Your task to perform on an android device: toggle location history Image 0: 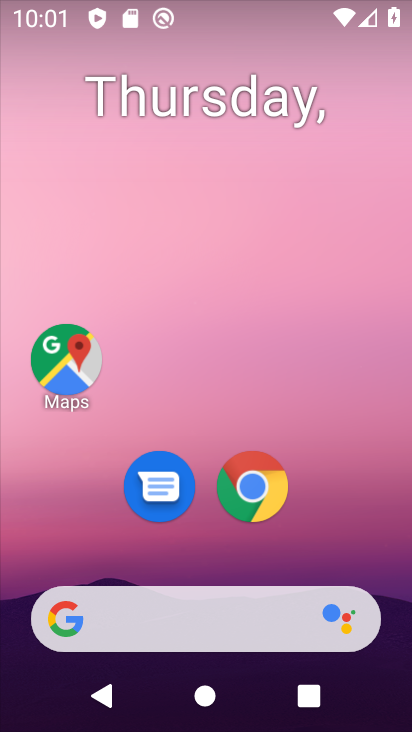
Step 0: drag from (153, 490) to (190, 124)
Your task to perform on an android device: toggle location history Image 1: 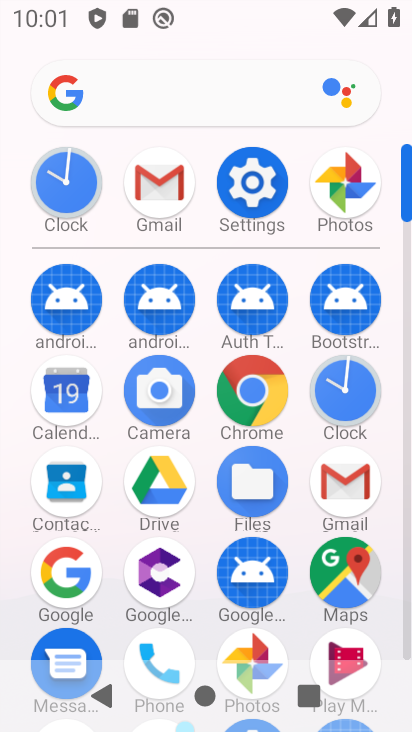
Step 1: click (254, 169)
Your task to perform on an android device: toggle location history Image 2: 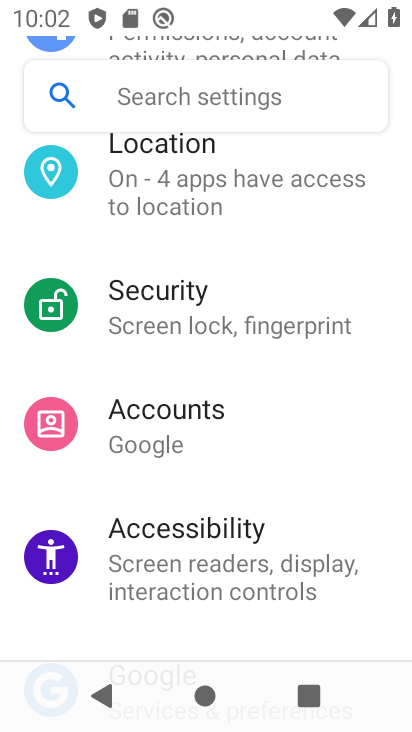
Step 2: click (238, 208)
Your task to perform on an android device: toggle location history Image 3: 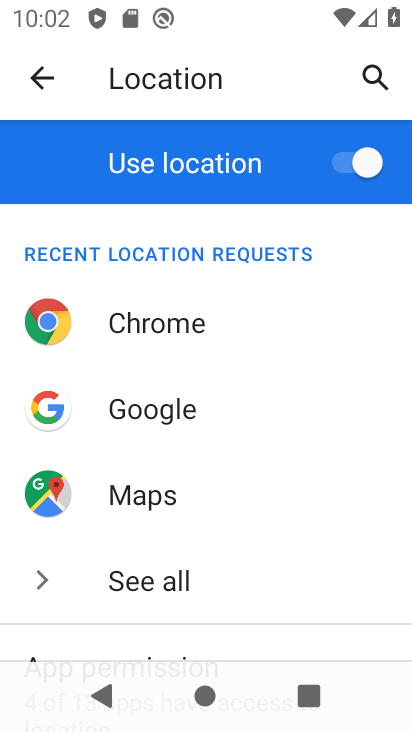
Step 3: drag from (234, 237) to (252, 117)
Your task to perform on an android device: toggle location history Image 4: 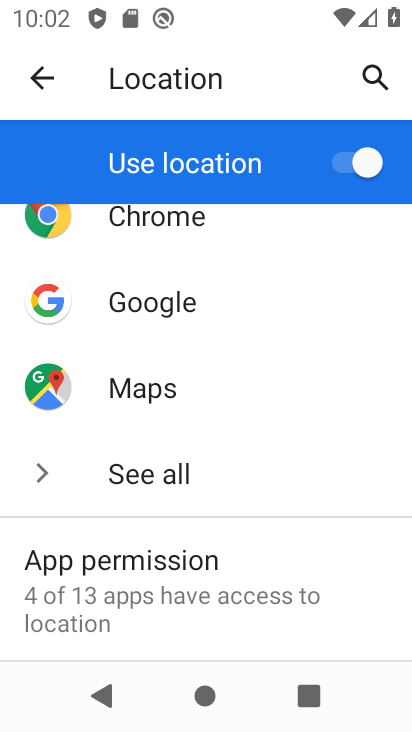
Step 4: drag from (204, 546) to (301, 163)
Your task to perform on an android device: toggle location history Image 5: 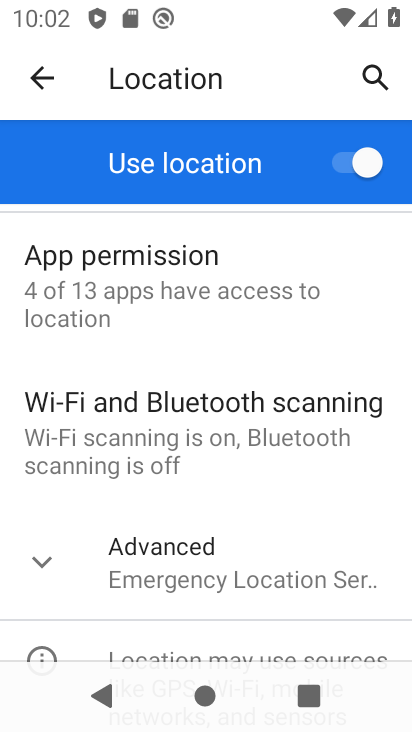
Step 5: click (173, 590)
Your task to perform on an android device: toggle location history Image 6: 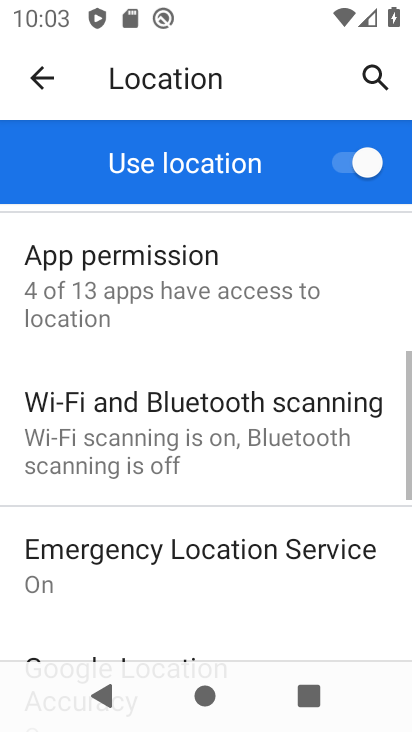
Step 6: drag from (174, 610) to (248, 222)
Your task to perform on an android device: toggle location history Image 7: 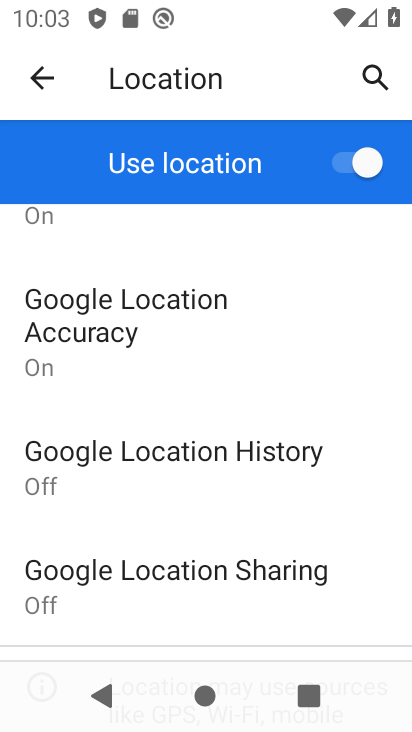
Step 7: click (202, 476)
Your task to perform on an android device: toggle location history Image 8: 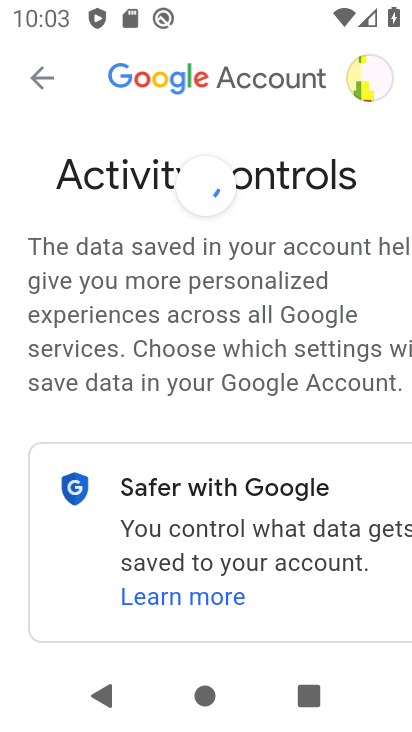
Step 8: drag from (197, 571) to (287, 50)
Your task to perform on an android device: toggle location history Image 9: 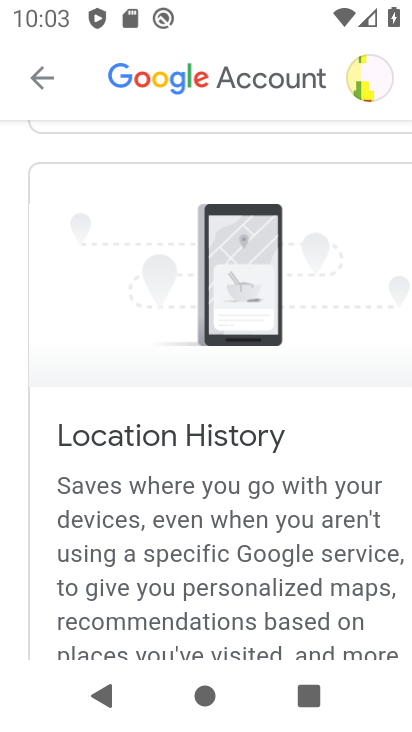
Step 9: drag from (172, 628) to (244, 152)
Your task to perform on an android device: toggle location history Image 10: 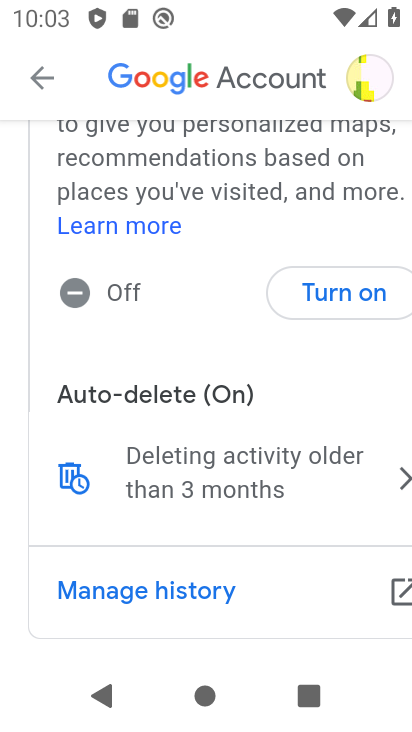
Step 10: click (329, 288)
Your task to perform on an android device: toggle location history Image 11: 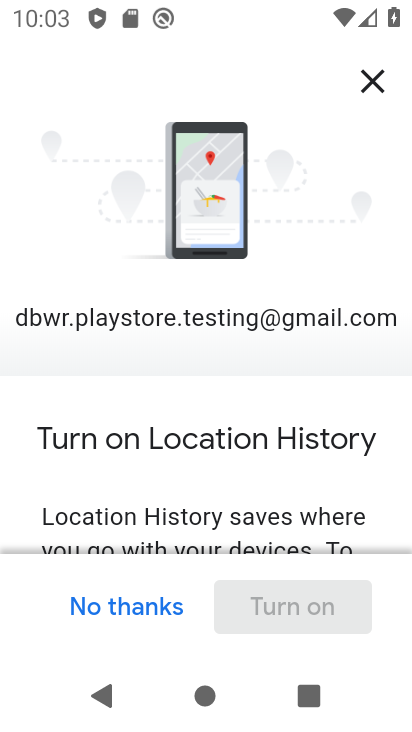
Step 11: drag from (259, 547) to (355, 84)
Your task to perform on an android device: toggle location history Image 12: 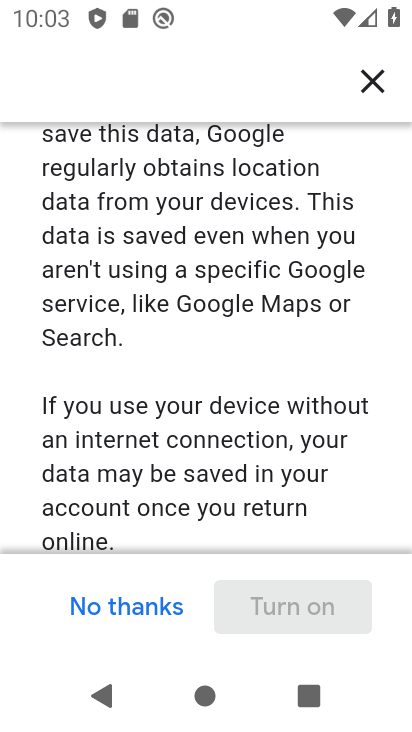
Step 12: drag from (217, 517) to (295, 49)
Your task to perform on an android device: toggle location history Image 13: 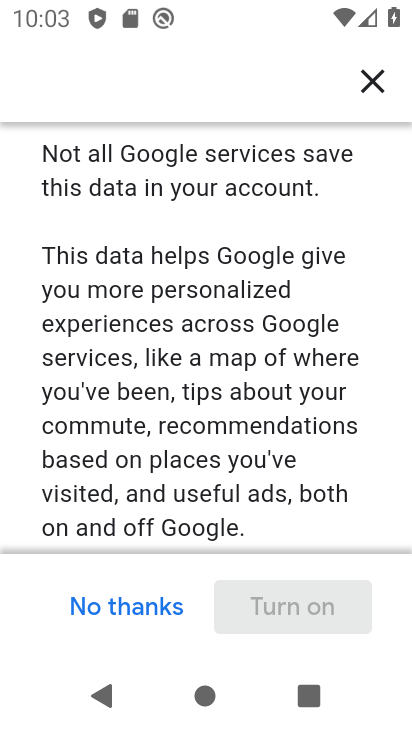
Step 13: drag from (221, 503) to (318, 32)
Your task to perform on an android device: toggle location history Image 14: 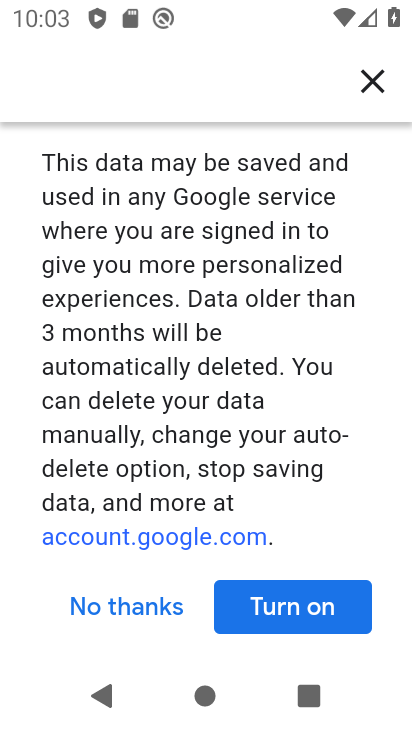
Step 14: click (260, 608)
Your task to perform on an android device: toggle location history Image 15: 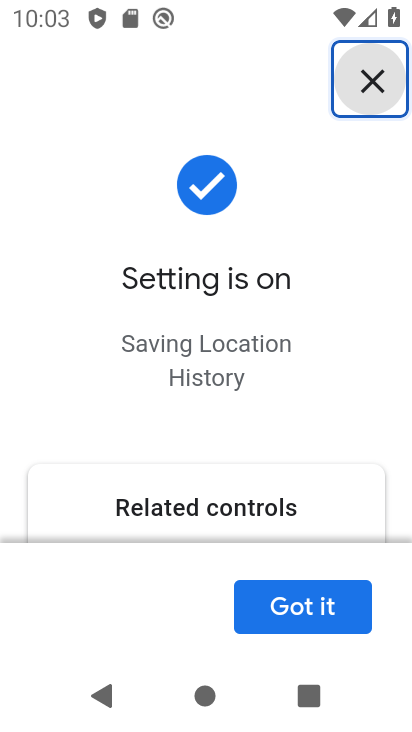
Step 15: click (325, 616)
Your task to perform on an android device: toggle location history Image 16: 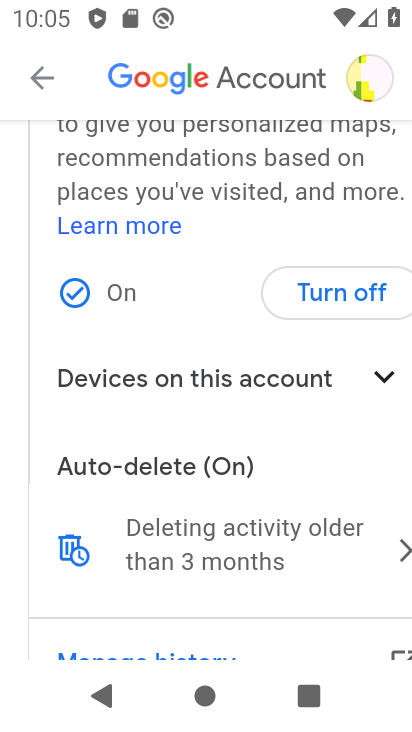
Step 16: drag from (290, 577) to (169, 648)
Your task to perform on an android device: toggle location history Image 17: 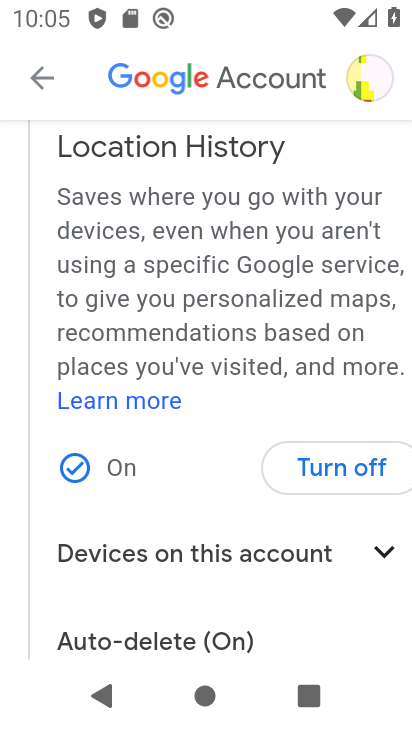
Step 17: drag from (211, 259) to (143, 686)
Your task to perform on an android device: toggle location history Image 18: 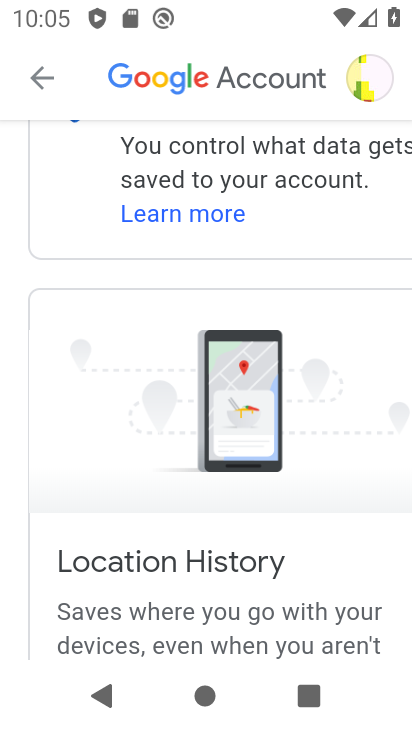
Step 18: drag from (169, 567) to (207, 43)
Your task to perform on an android device: toggle location history Image 19: 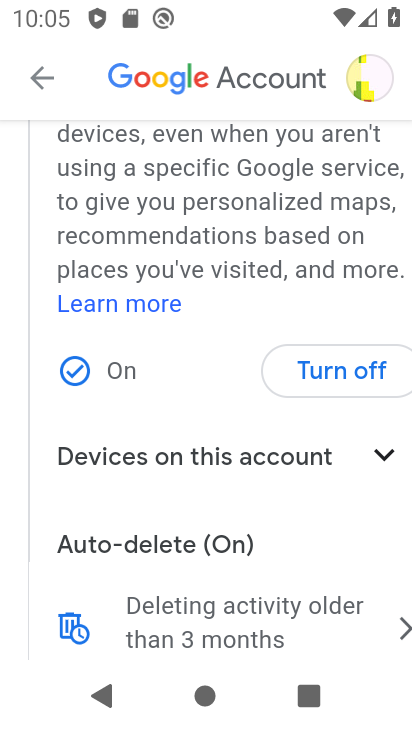
Step 19: click (337, 363)
Your task to perform on an android device: toggle location history Image 20: 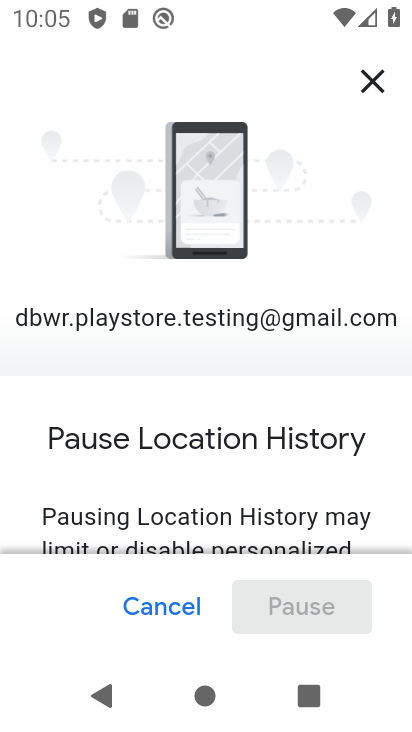
Step 20: drag from (243, 489) to (261, 9)
Your task to perform on an android device: toggle location history Image 21: 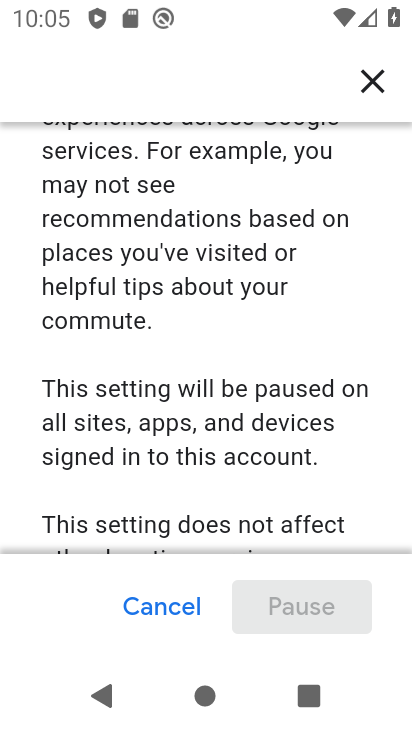
Step 21: drag from (227, 491) to (308, 23)
Your task to perform on an android device: toggle location history Image 22: 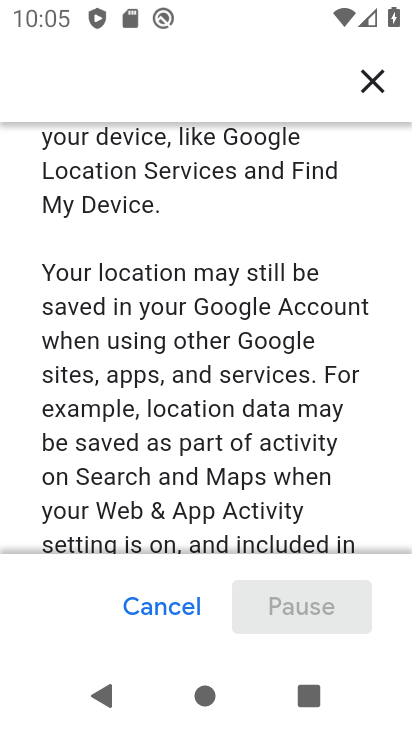
Step 22: drag from (238, 478) to (301, 21)
Your task to perform on an android device: toggle location history Image 23: 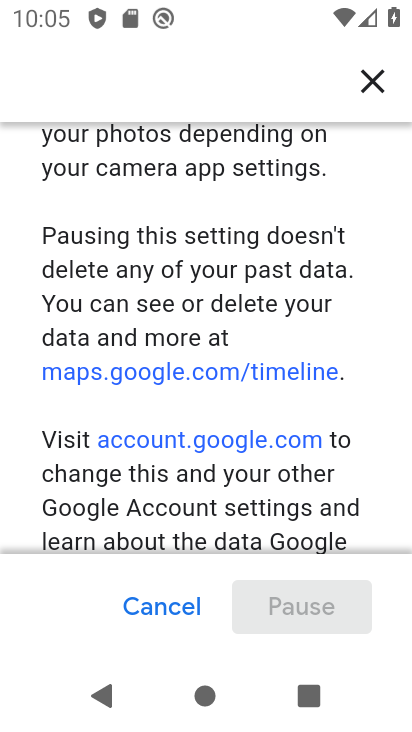
Step 23: drag from (275, 536) to (312, 9)
Your task to perform on an android device: toggle location history Image 24: 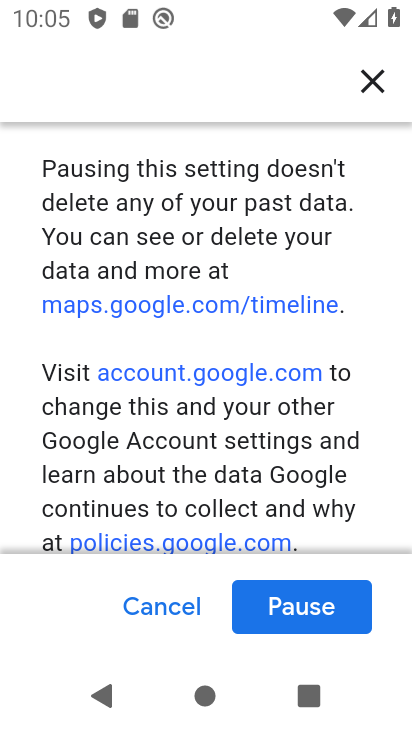
Step 24: click (303, 612)
Your task to perform on an android device: toggle location history Image 25: 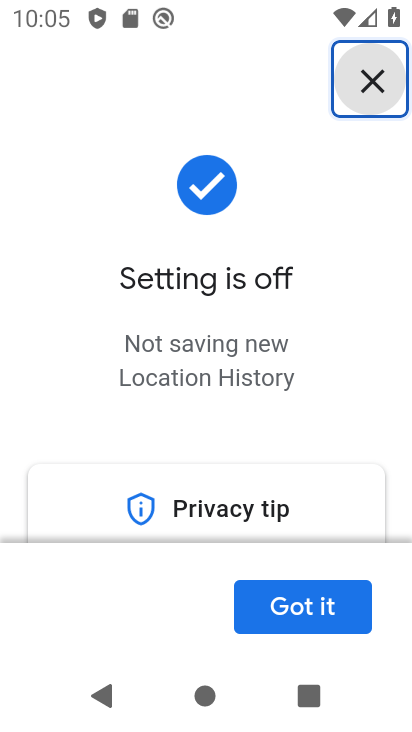
Step 25: click (305, 599)
Your task to perform on an android device: toggle location history Image 26: 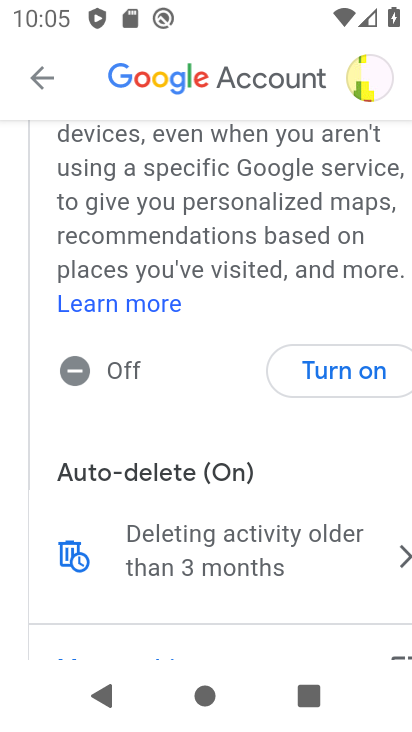
Step 26: task complete